Your task to perform on an android device: check google app version Image 0: 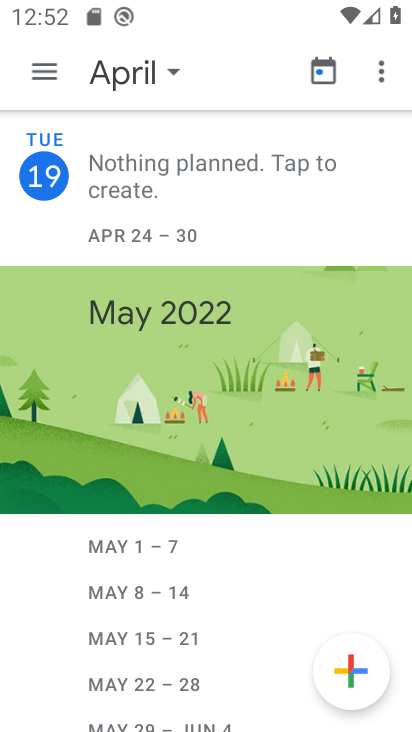
Step 0: press back button
Your task to perform on an android device: check google app version Image 1: 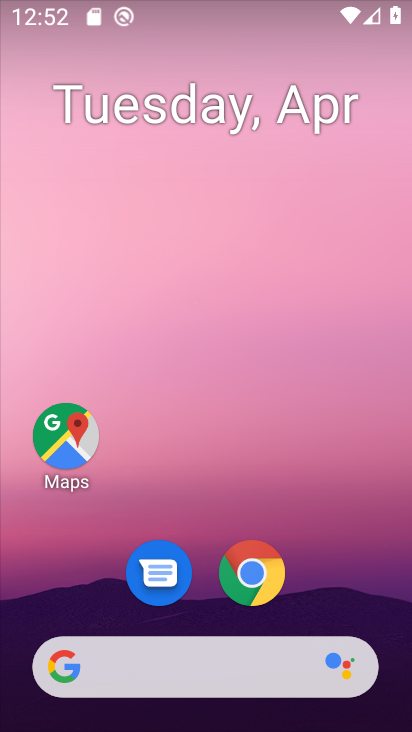
Step 1: drag from (185, 486) to (277, 45)
Your task to perform on an android device: check google app version Image 2: 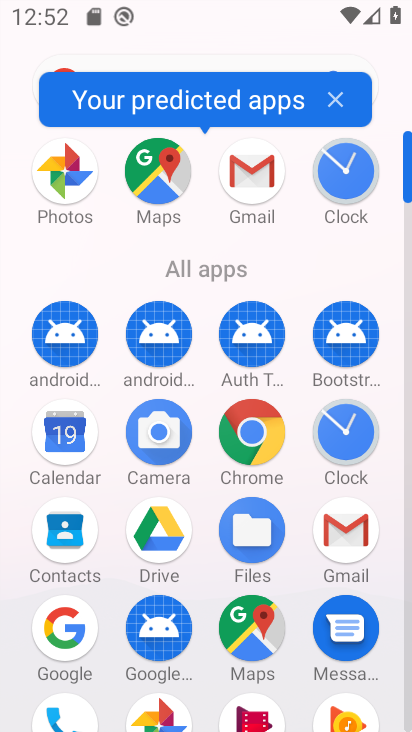
Step 2: drag from (169, 578) to (247, 299)
Your task to perform on an android device: check google app version Image 3: 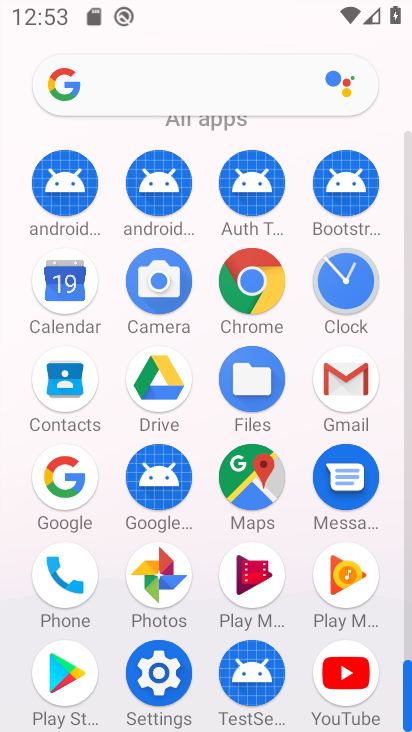
Step 3: click (147, 677)
Your task to perform on an android device: check google app version Image 4: 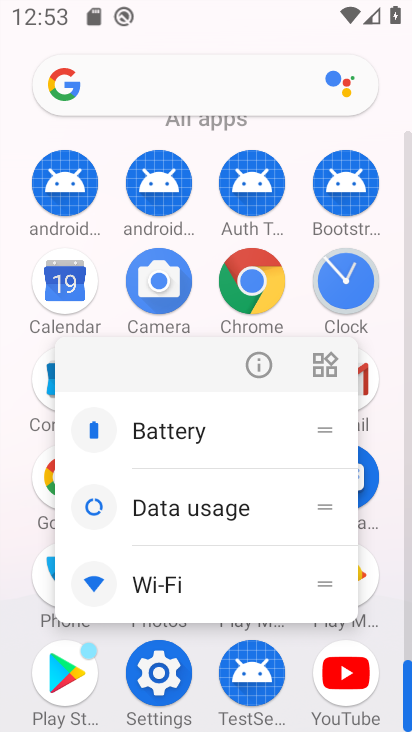
Step 4: click (157, 674)
Your task to perform on an android device: check google app version Image 5: 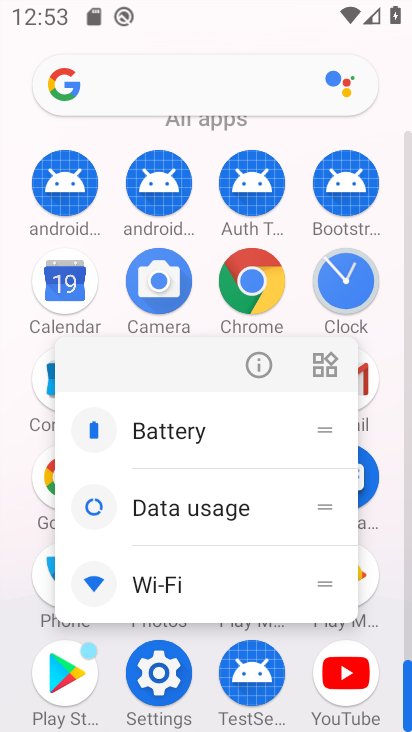
Step 5: click (166, 680)
Your task to perform on an android device: check google app version Image 6: 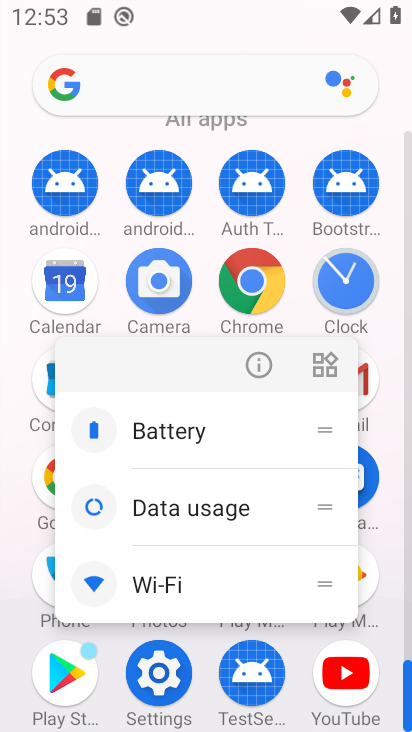
Step 6: click (155, 704)
Your task to perform on an android device: check google app version Image 7: 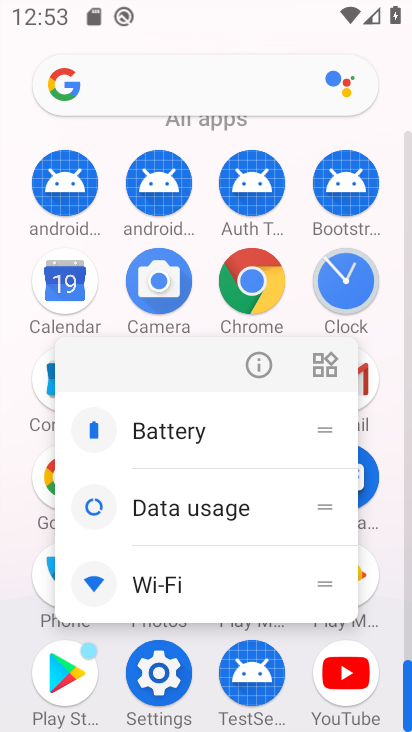
Step 7: click (167, 689)
Your task to perform on an android device: check google app version Image 8: 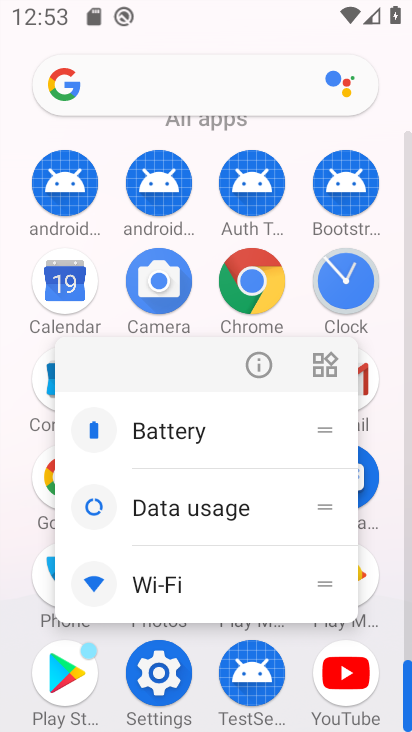
Step 8: click (157, 682)
Your task to perform on an android device: check google app version Image 9: 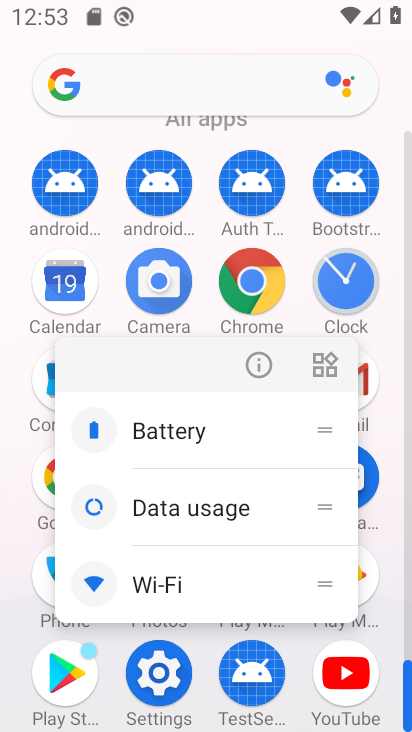
Step 9: click (147, 680)
Your task to perform on an android device: check google app version Image 10: 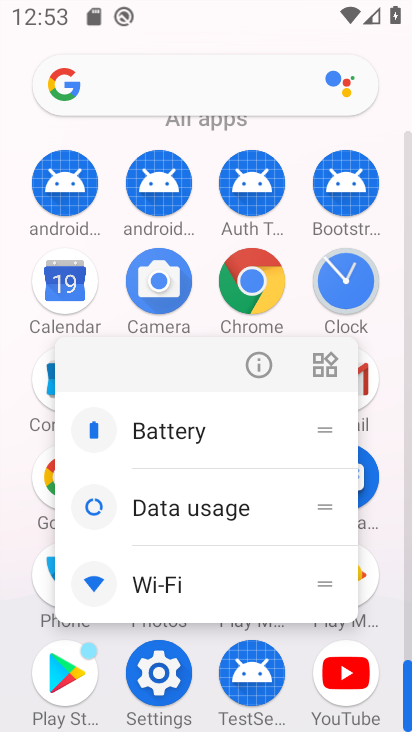
Step 10: click (146, 683)
Your task to perform on an android device: check google app version Image 11: 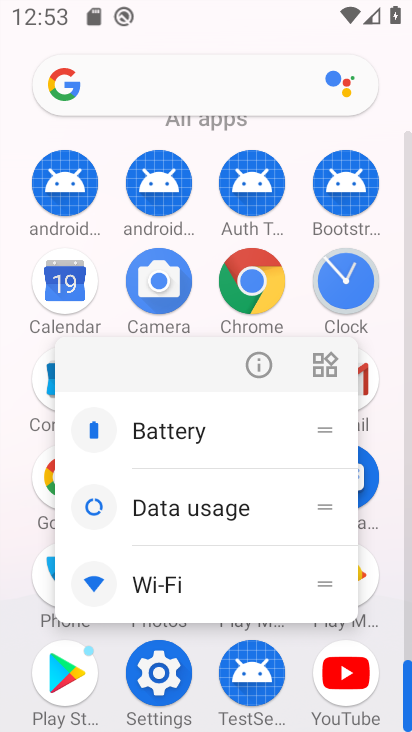
Step 11: click (161, 664)
Your task to perform on an android device: check google app version Image 12: 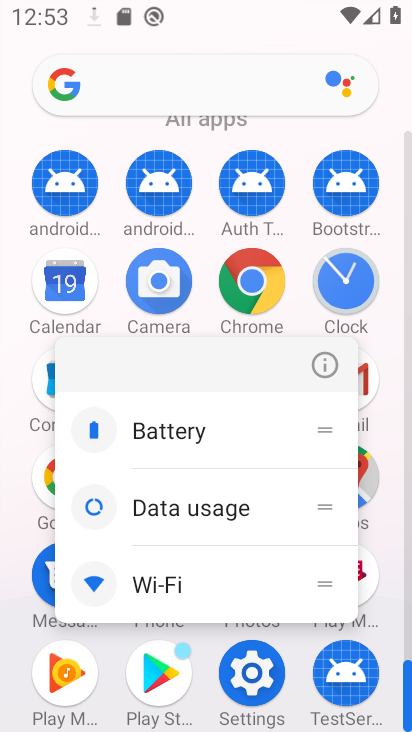
Step 12: click (240, 673)
Your task to perform on an android device: check google app version Image 13: 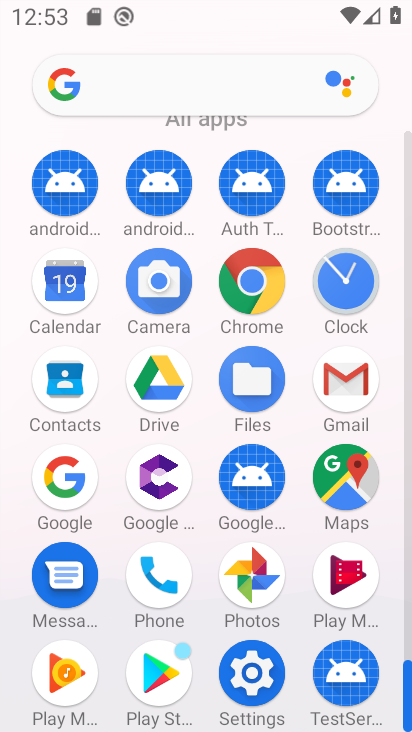
Step 13: click (267, 671)
Your task to perform on an android device: check google app version Image 14: 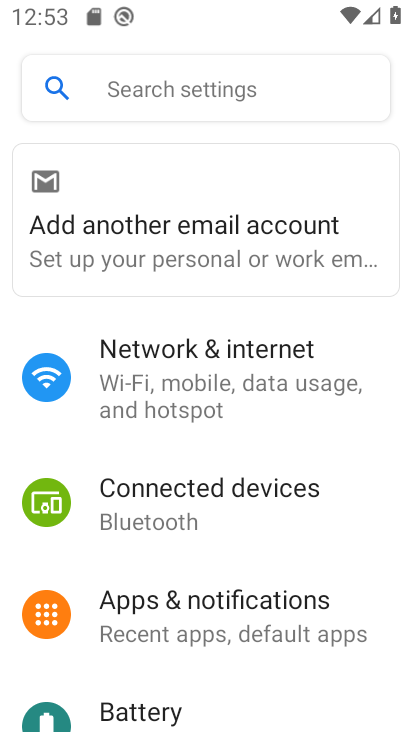
Step 14: click (287, 624)
Your task to perform on an android device: check google app version Image 15: 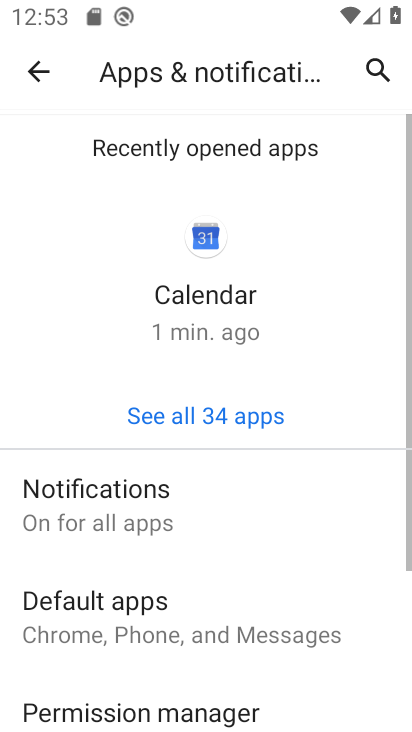
Step 15: click (245, 409)
Your task to perform on an android device: check google app version Image 16: 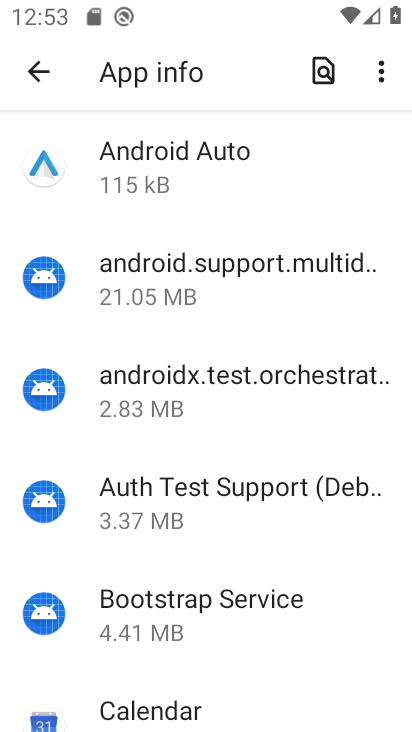
Step 16: drag from (183, 645) to (343, 89)
Your task to perform on an android device: check google app version Image 17: 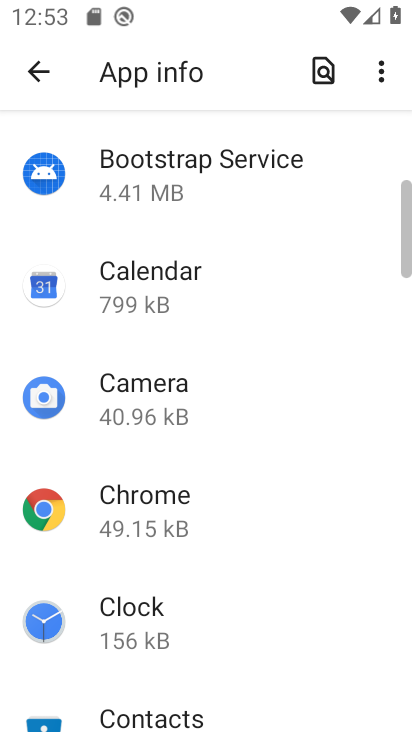
Step 17: drag from (246, 676) to (403, 378)
Your task to perform on an android device: check google app version Image 18: 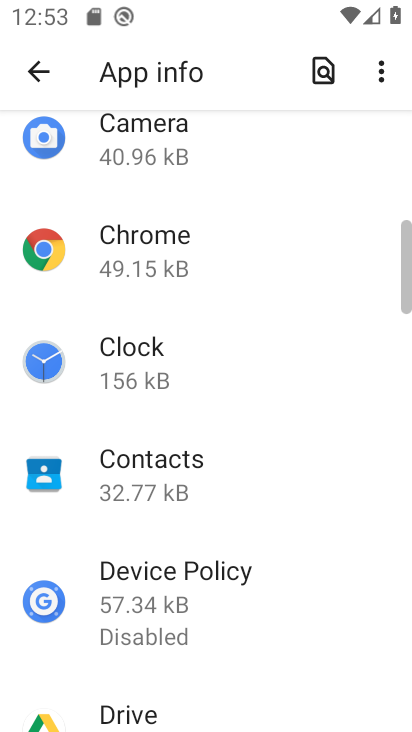
Step 18: drag from (307, 534) to (409, 139)
Your task to perform on an android device: check google app version Image 19: 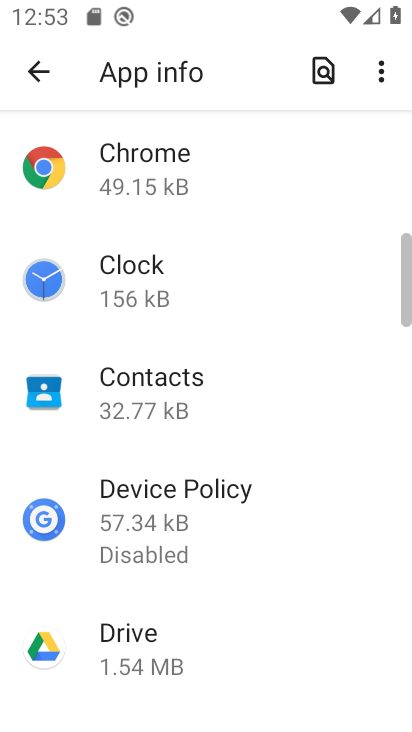
Step 19: drag from (189, 575) to (336, 137)
Your task to perform on an android device: check google app version Image 20: 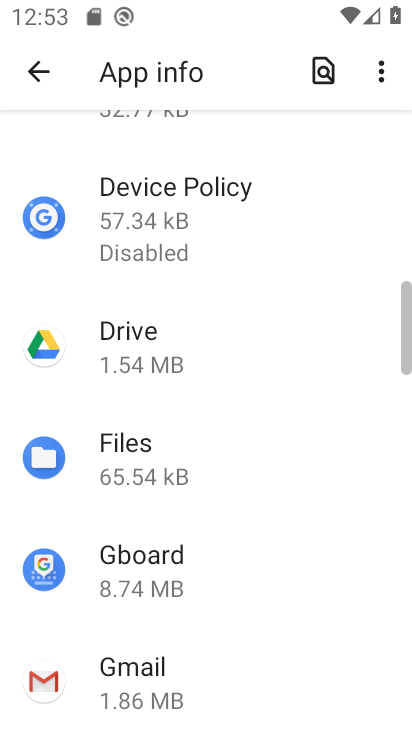
Step 20: drag from (174, 689) to (297, 216)
Your task to perform on an android device: check google app version Image 21: 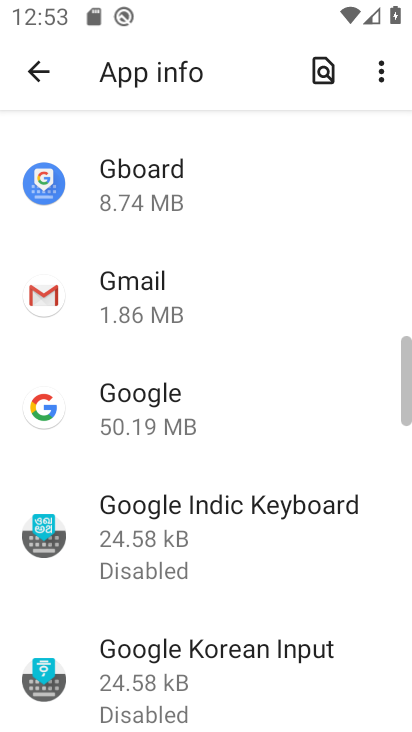
Step 21: click (188, 421)
Your task to perform on an android device: check google app version Image 22: 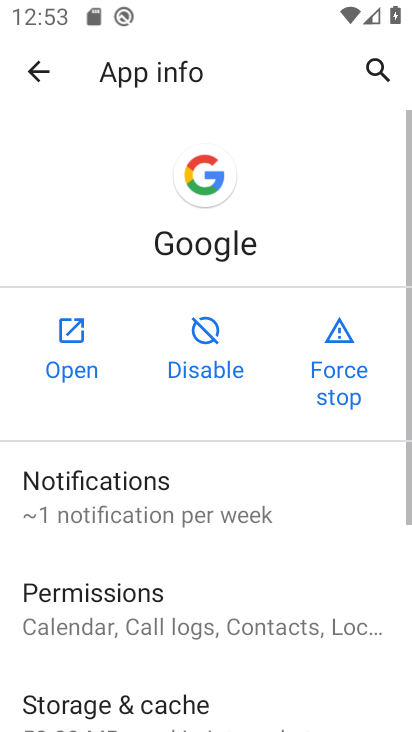
Step 22: drag from (197, 549) to (374, 81)
Your task to perform on an android device: check google app version Image 23: 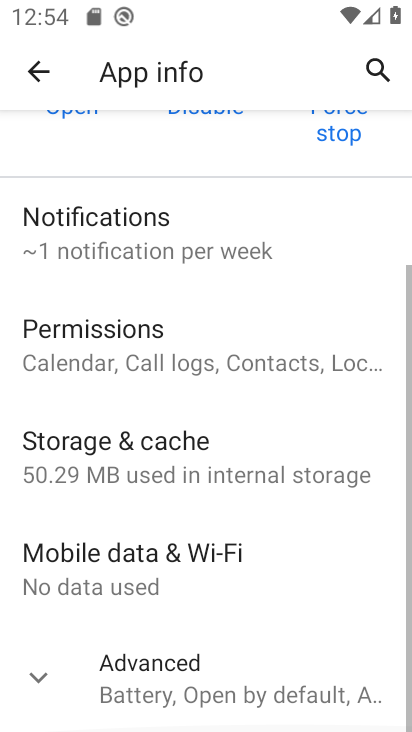
Step 23: drag from (225, 497) to (351, 124)
Your task to perform on an android device: check google app version Image 24: 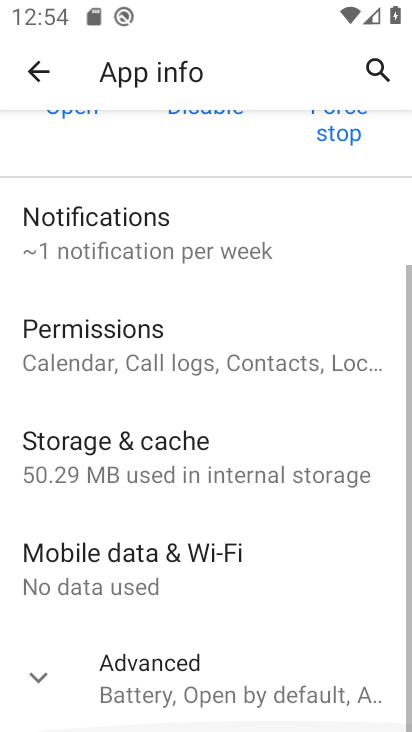
Step 24: click (207, 658)
Your task to perform on an android device: check google app version Image 25: 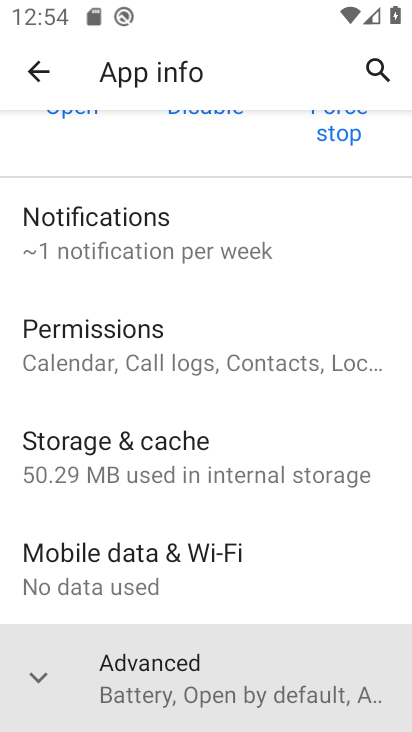
Step 25: task complete